Your task to perform on an android device: open app "Duolingo: language lessons" (install if not already installed), go to login, and select forgot password Image 0: 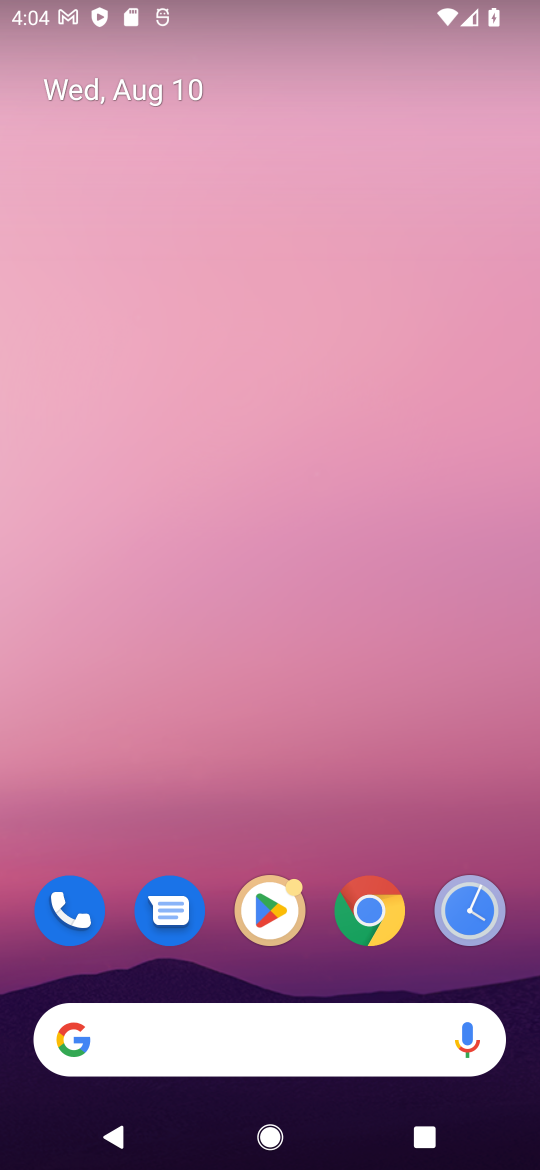
Step 0: click (275, 922)
Your task to perform on an android device: open app "Duolingo: language lessons" (install if not already installed), go to login, and select forgot password Image 1: 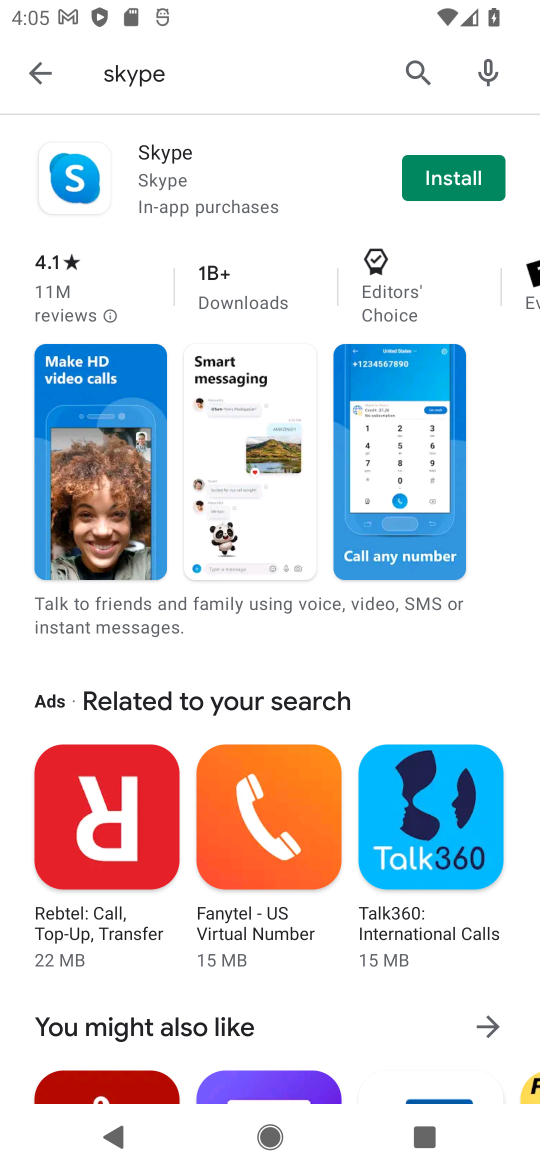
Step 1: click (412, 70)
Your task to perform on an android device: open app "Duolingo: language lessons" (install if not already installed), go to login, and select forgot password Image 2: 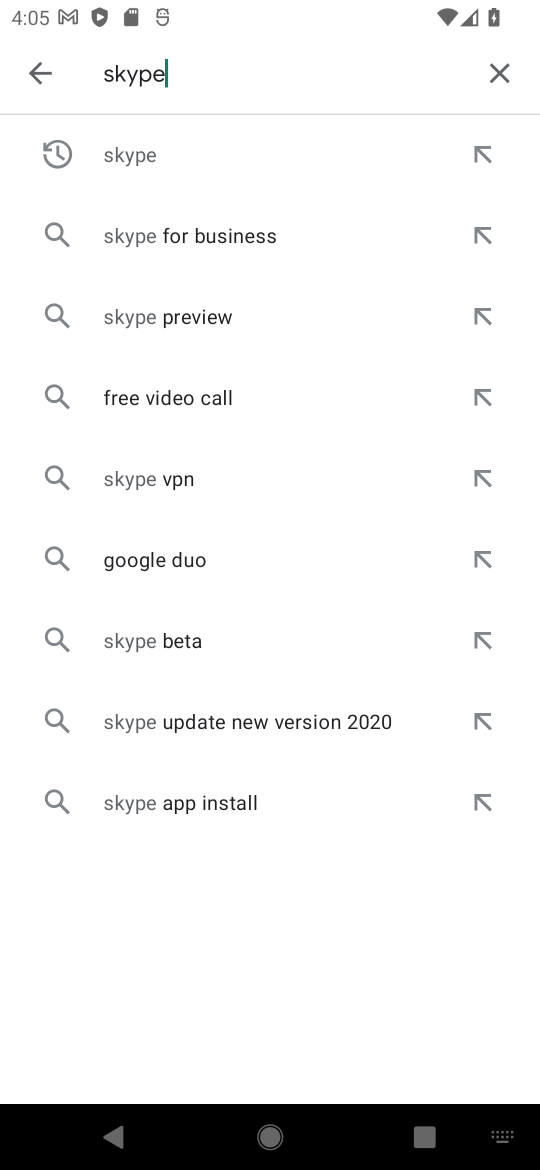
Step 2: click (486, 61)
Your task to perform on an android device: open app "Duolingo: language lessons" (install if not already installed), go to login, and select forgot password Image 3: 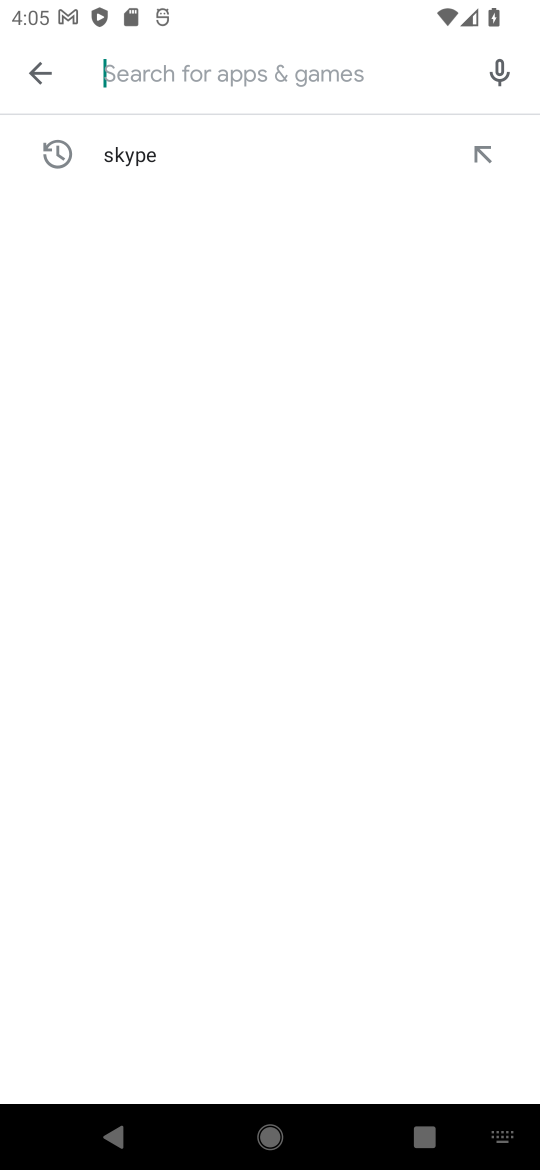
Step 3: type "duolingo"
Your task to perform on an android device: open app "Duolingo: language lessons" (install if not already installed), go to login, and select forgot password Image 4: 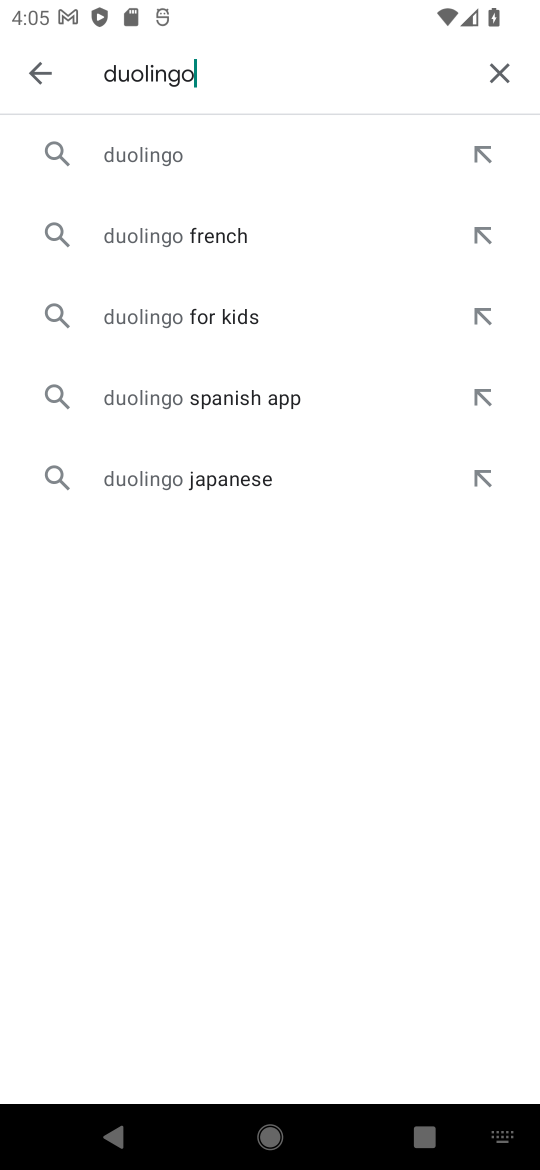
Step 4: click (186, 113)
Your task to perform on an android device: open app "Duolingo: language lessons" (install if not already installed), go to login, and select forgot password Image 5: 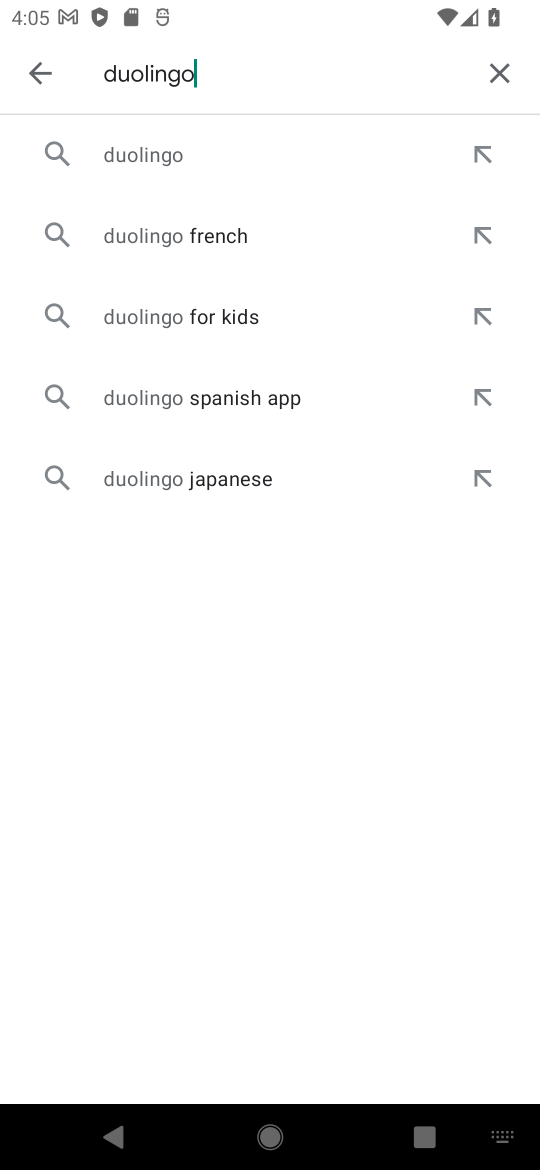
Step 5: click (170, 153)
Your task to perform on an android device: open app "Duolingo: language lessons" (install if not already installed), go to login, and select forgot password Image 6: 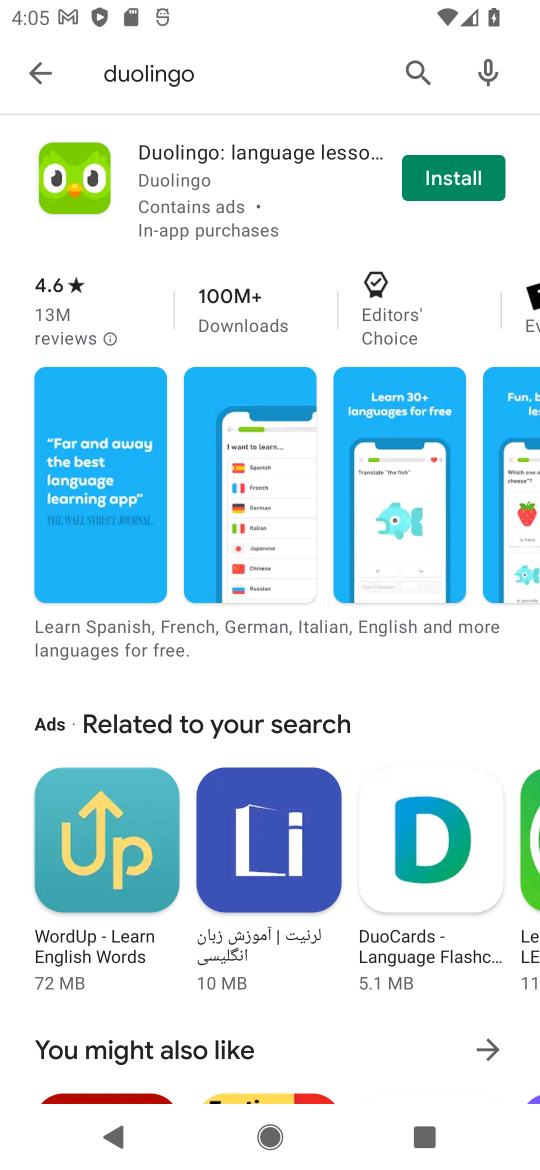
Step 6: click (485, 166)
Your task to perform on an android device: open app "Duolingo: language lessons" (install if not already installed), go to login, and select forgot password Image 7: 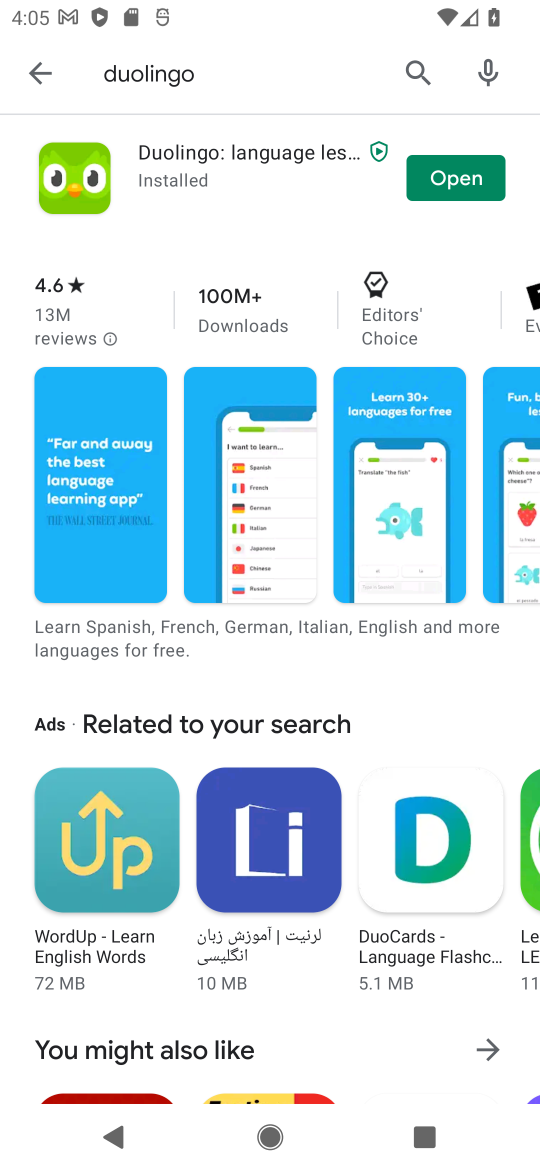
Step 7: click (446, 176)
Your task to perform on an android device: open app "Duolingo: language lessons" (install if not already installed), go to login, and select forgot password Image 8: 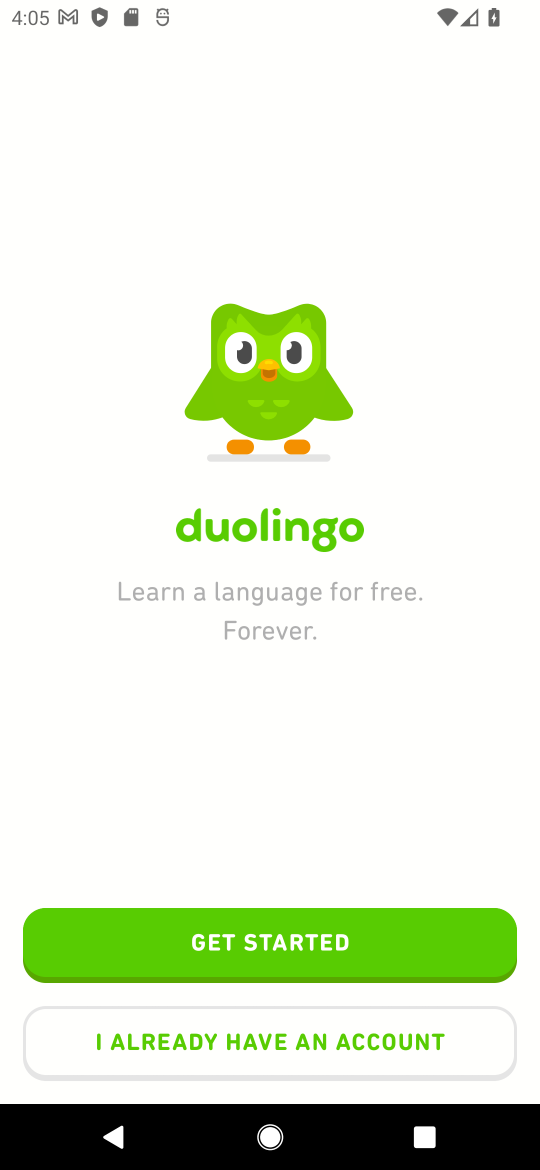
Step 8: click (241, 944)
Your task to perform on an android device: open app "Duolingo: language lessons" (install if not already installed), go to login, and select forgot password Image 9: 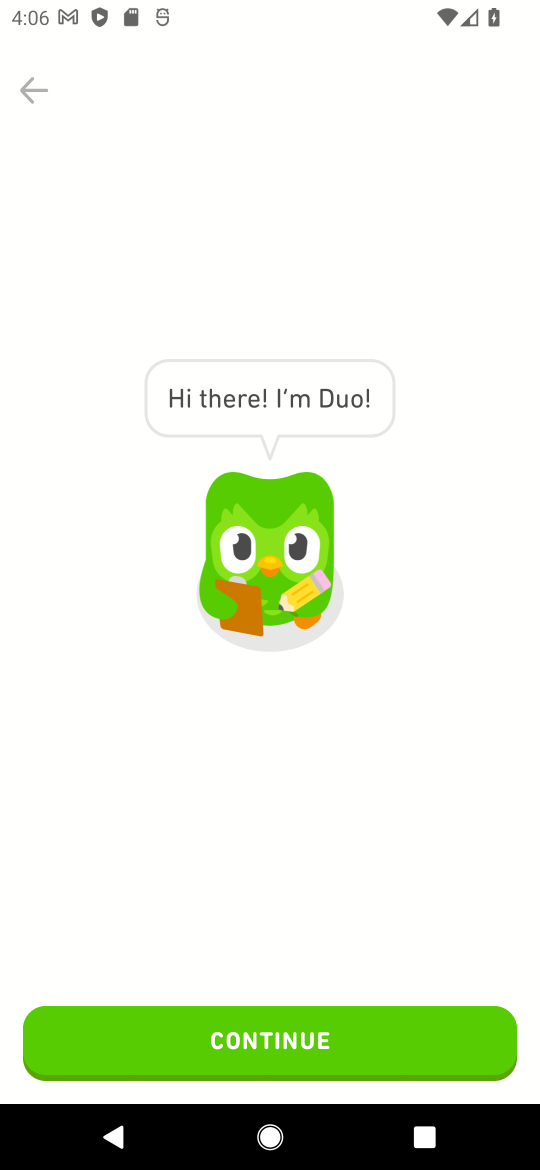
Step 9: click (241, 1035)
Your task to perform on an android device: open app "Duolingo: language lessons" (install if not already installed), go to login, and select forgot password Image 10: 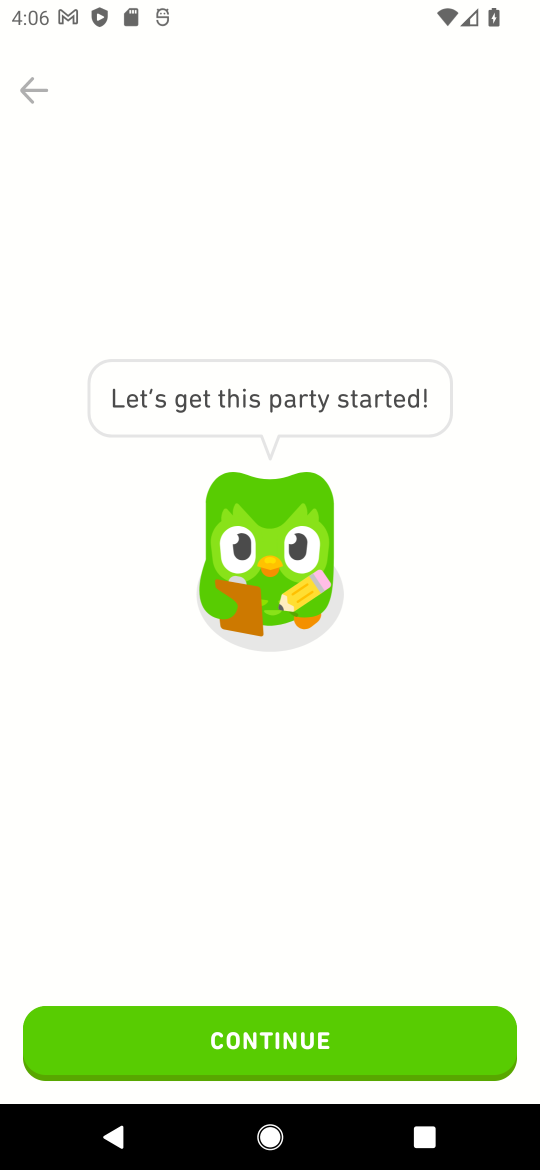
Step 10: click (241, 1035)
Your task to perform on an android device: open app "Duolingo: language lessons" (install if not already installed), go to login, and select forgot password Image 11: 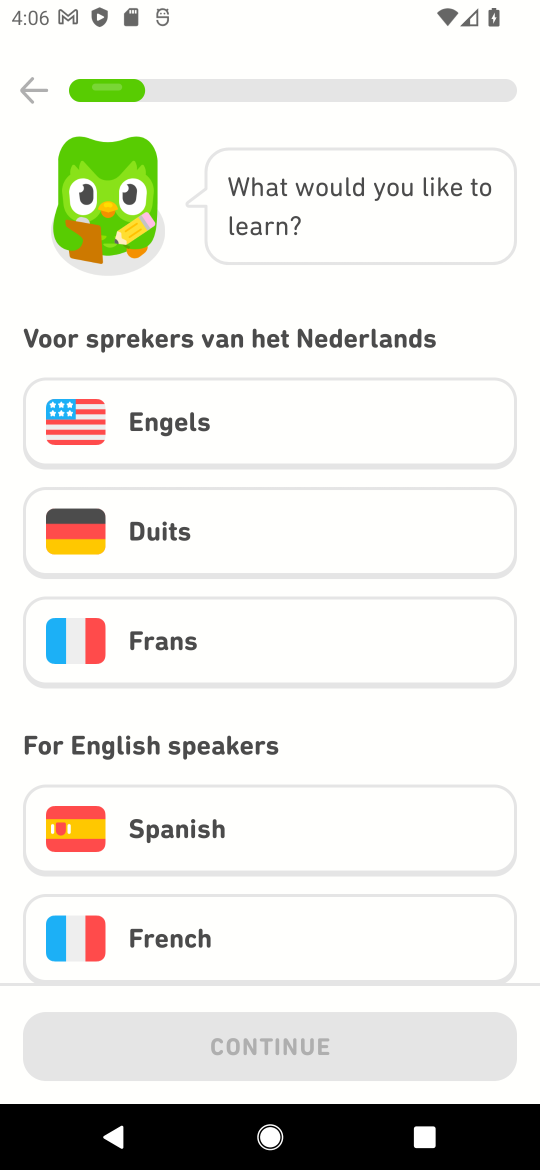
Step 11: click (24, 78)
Your task to perform on an android device: open app "Duolingo: language lessons" (install if not already installed), go to login, and select forgot password Image 12: 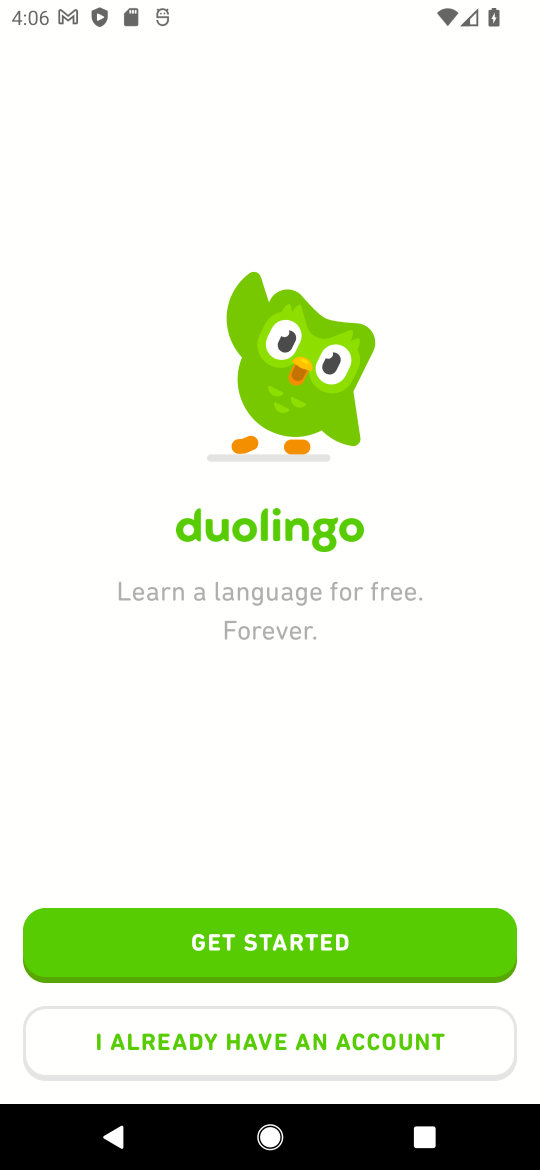
Step 12: click (253, 1058)
Your task to perform on an android device: open app "Duolingo: language lessons" (install if not already installed), go to login, and select forgot password Image 13: 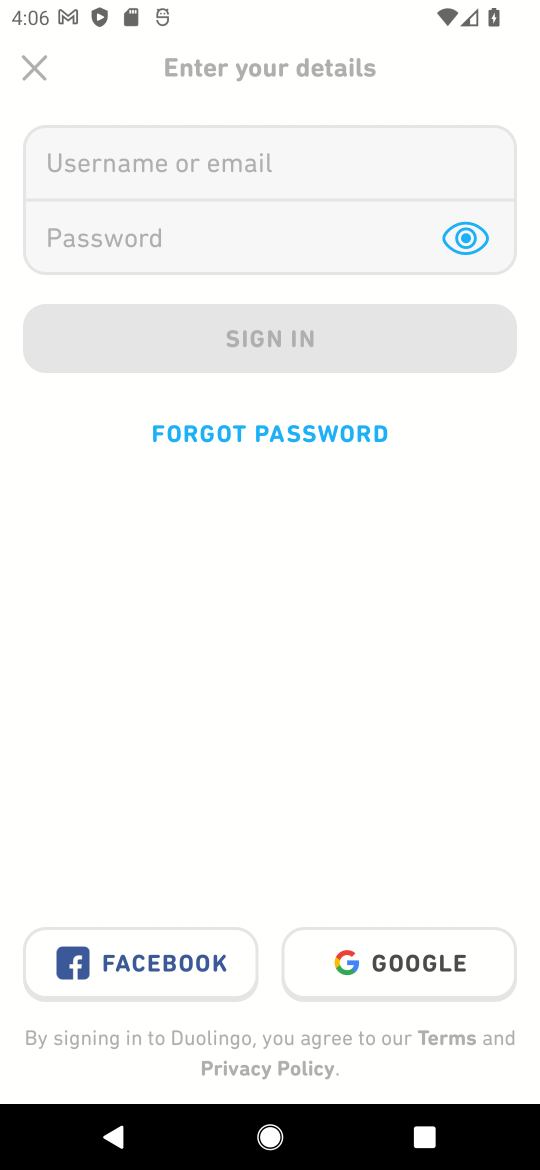
Step 13: click (230, 420)
Your task to perform on an android device: open app "Duolingo: language lessons" (install if not already installed), go to login, and select forgot password Image 14: 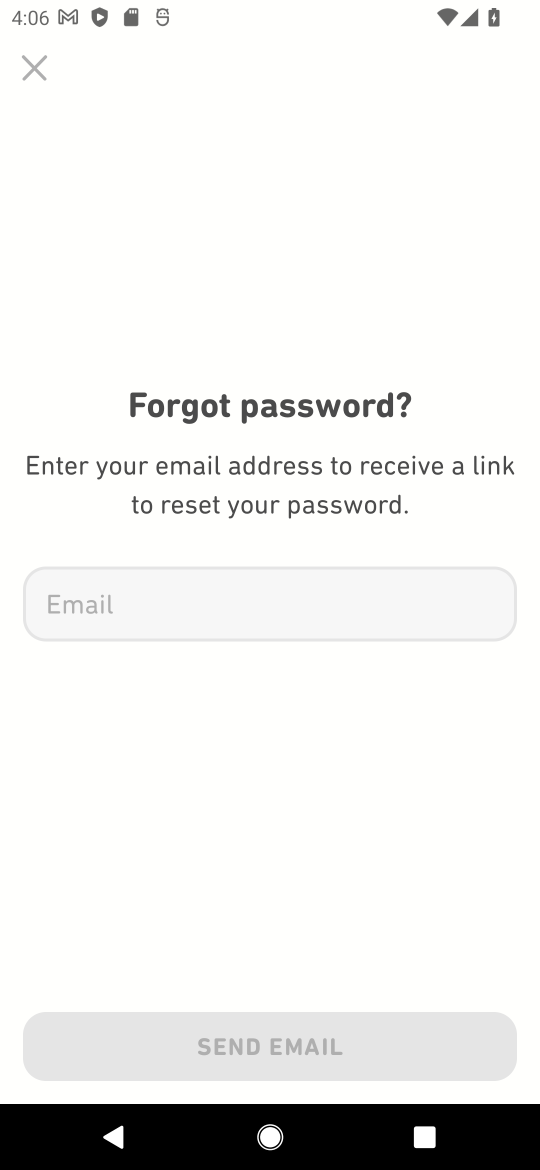
Step 14: task complete